Your task to perform on an android device: change the clock display to digital Image 0: 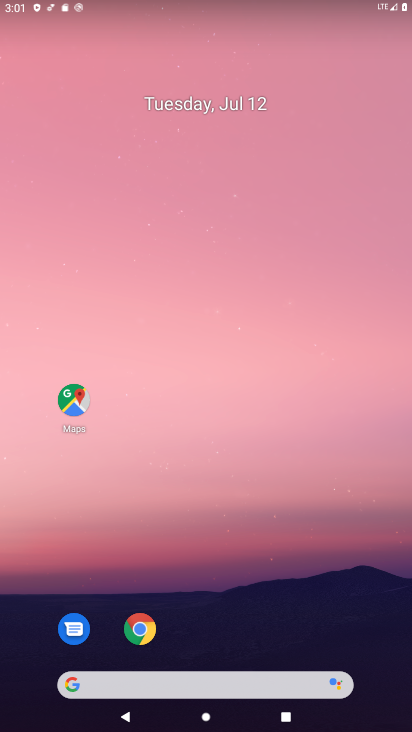
Step 0: drag from (246, 277) to (252, 194)
Your task to perform on an android device: change the clock display to digital Image 1: 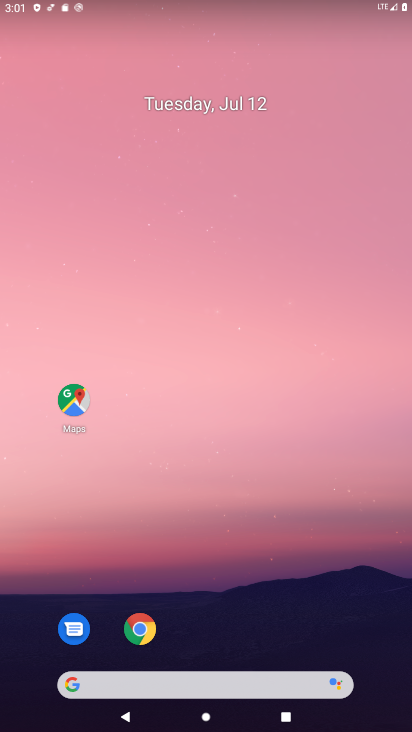
Step 1: drag from (266, 661) to (257, 405)
Your task to perform on an android device: change the clock display to digital Image 2: 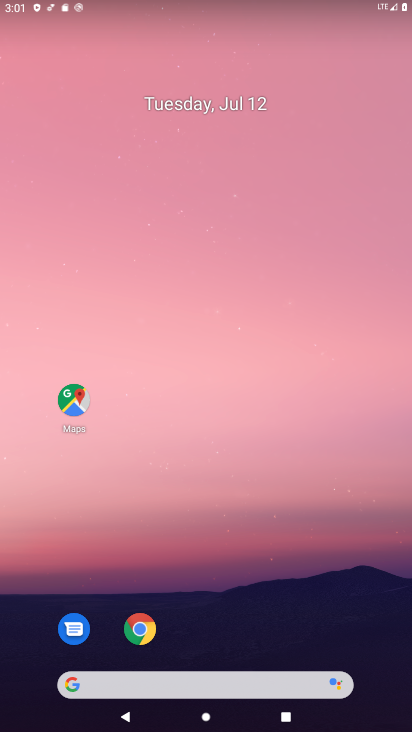
Step 2: drag from (262, 668) to (224, 270)
Your task to perform on an android device: change the clock display to digital Image 3: 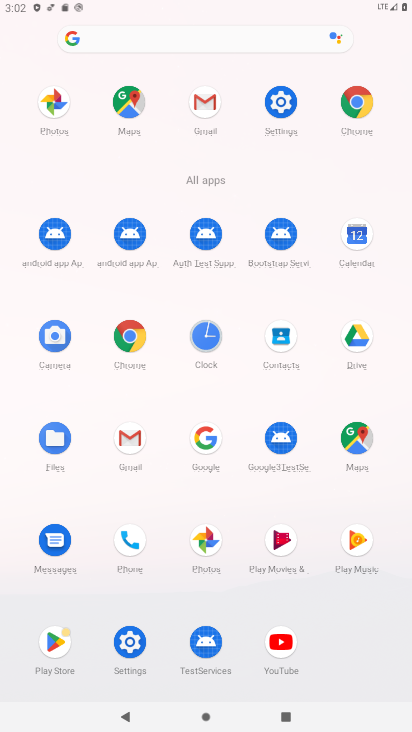
Step 3: click (204, 324)
Your task to perform on an android device: change the clock display to digital Image 4: 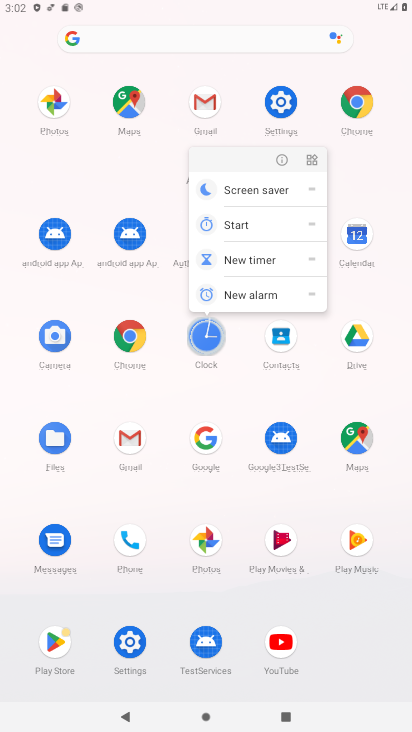
Step 4: click (206, 323)
Your task to perform on an android device: change the clock display to digital Image 5: 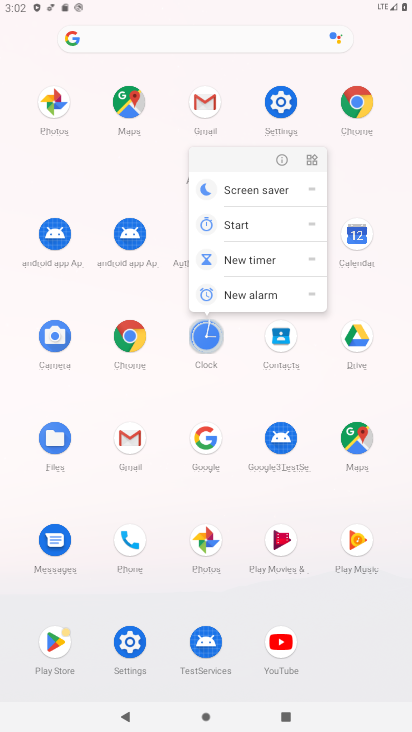
Step 5: click (206, 323)
Your task to perform on an android device: change the clock display to digital Image 6: 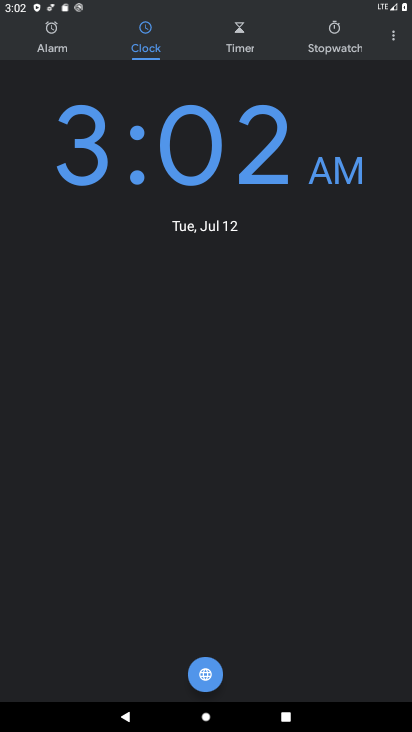
Step 6: click (386, 35)
Your task to perform on an android device: change the clock display to digital Image 7: 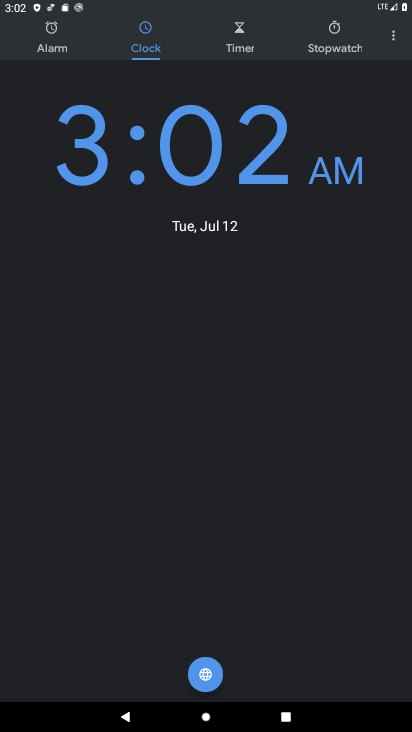
Step 7: click (386, 35)
Your task to perform on an android device: change the clock display to digital Image 8: 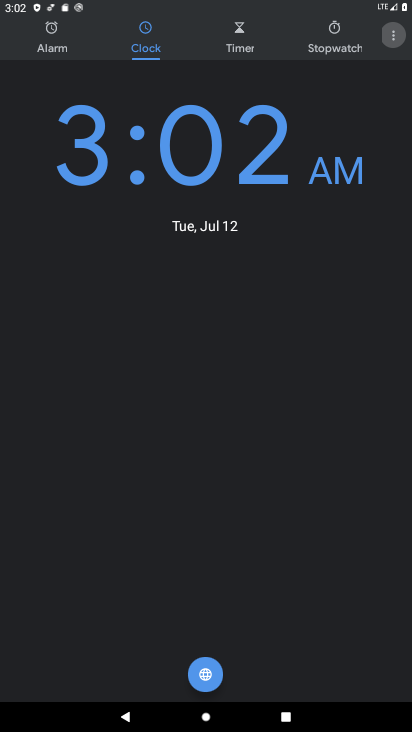
Step 8: click (388, 36)
Your task to perform on an android device: change the clock display to digital Image 9: 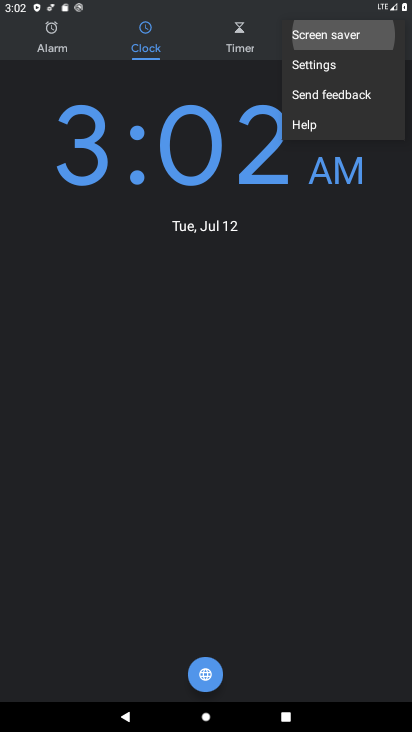
Step 9: click (389, 35)
Your task to perform on an android device: change the clock display to digital Image 10: 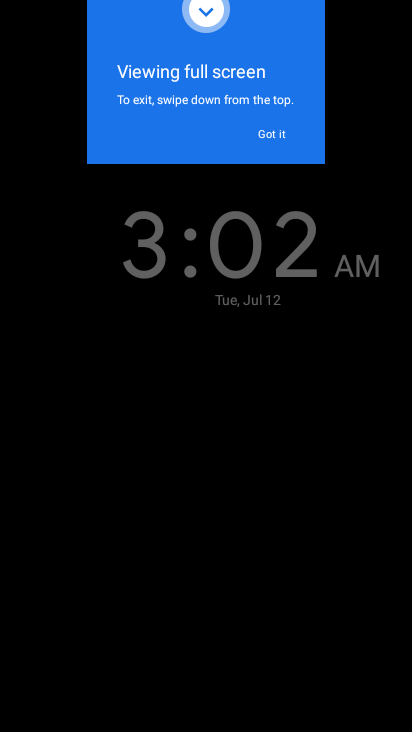
Step 10: click (283, 127)
Your task to perform on an android device: change the clock display to digital Image 11: 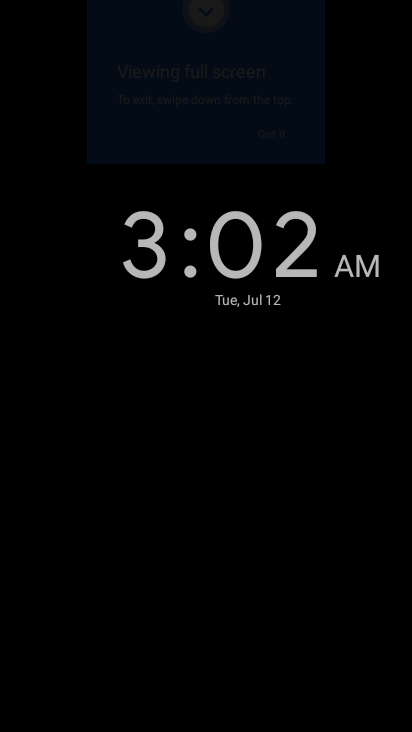
Step 11: click (282, 126)
Your task to perform on an android device: change the clock display to digital Image 12: 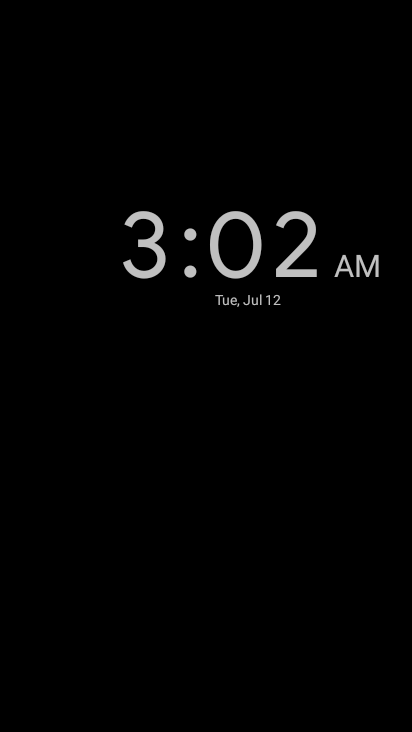
Step 12: click (282, 126)
Your task to perform on an android device: change the clock display to digital Image 13: 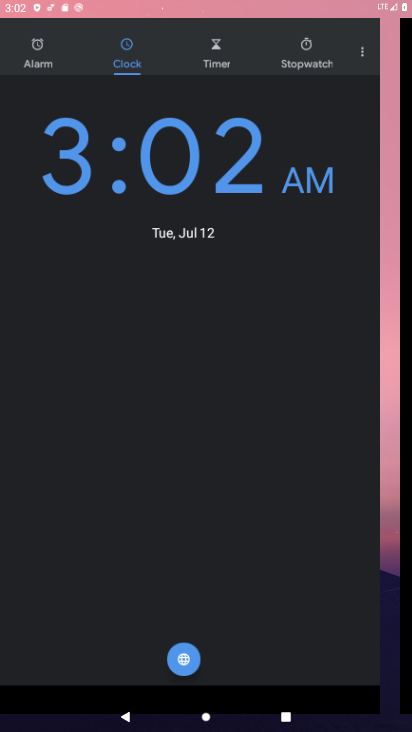
Step 13: click (282, 126)
Your task to perform on an android device: change the clock display to digital Image 14: 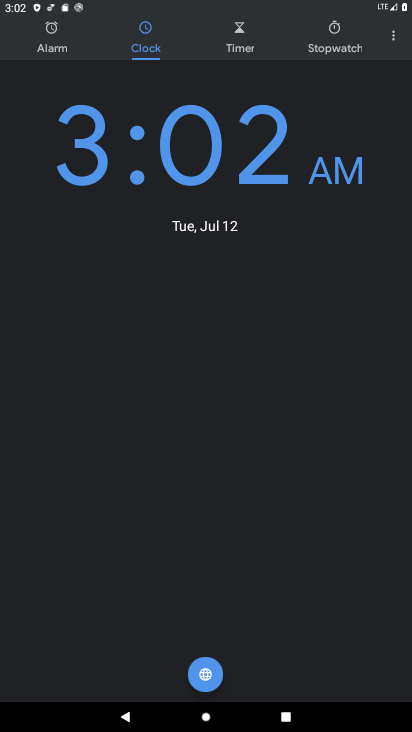
Step 14: click (392, 28)
Your task to perform on an android device: change the clock display to digital Image 15: 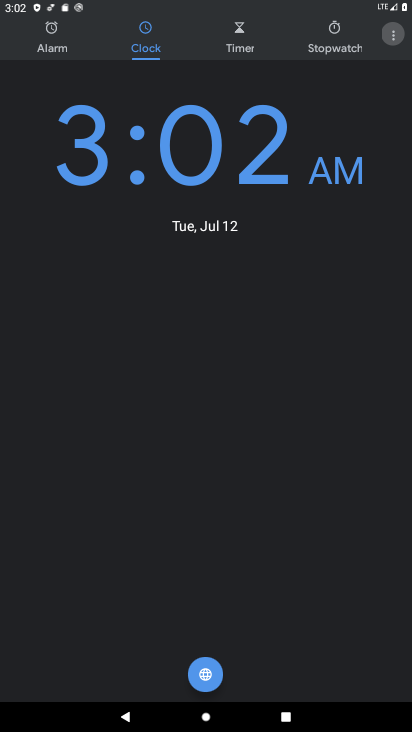
Step 15: click (392, 28)
Your task to perform on an android device: change the clock display to digital Image 16: 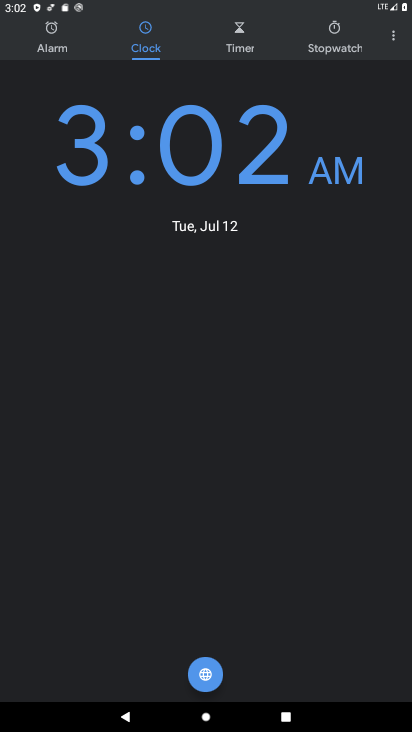
Step 16: click (392, 28)
Your task to perform on an android device: change the clock display to digital Image 17: 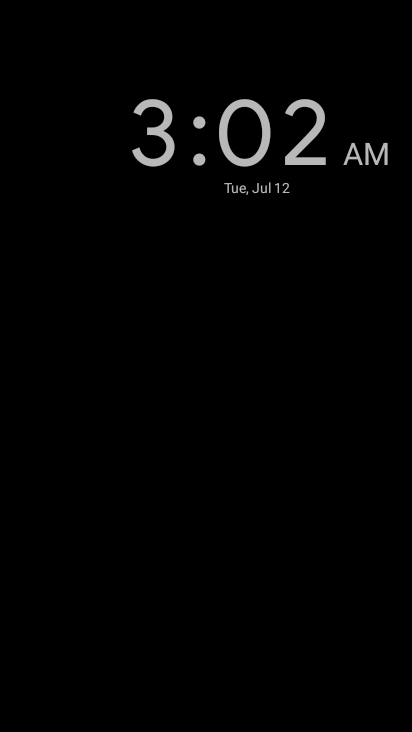
Step 17: press back button
Your task to perform on an android device: change the clock display to digital Image 18: 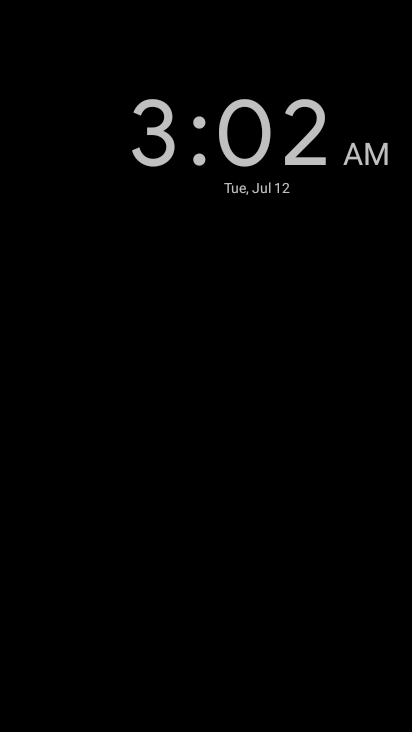
Step 18: press back button
Your task to perform on an android device: change the clock display to digital Image 19: 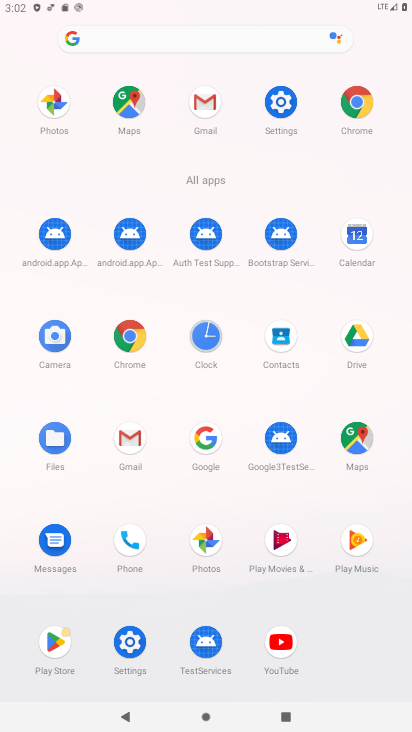
Step 19: click (205, 339)
Your task to perform on an android device: change the clock display to digital Image 20: 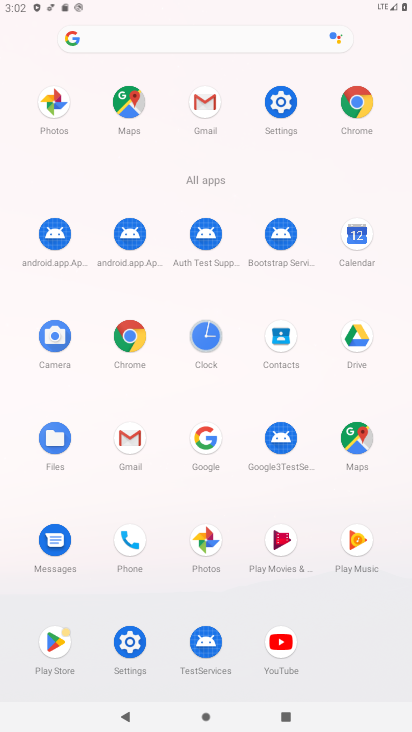
Step 20: click (204, 338)
Your task to perform on an android device: change the clock display to digital Image 21: 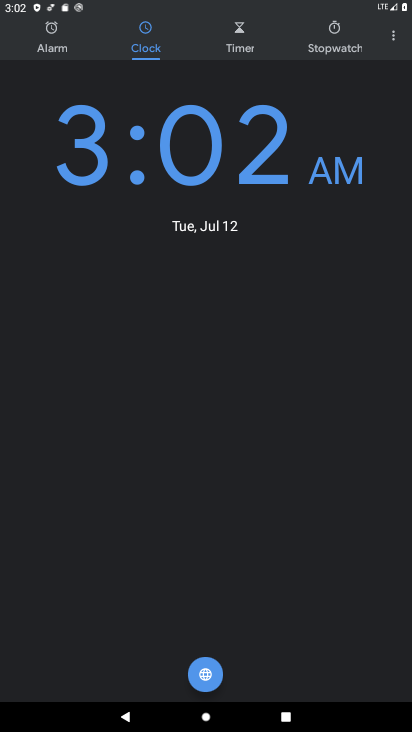
Step 21: click (393, 40)
Your task to perform on an android device: change the clock display to digital Image 22: 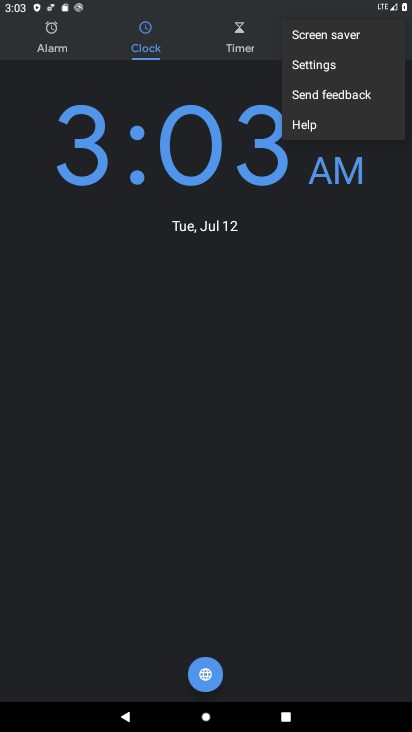
Step 22: click (303, 64)
Your task to perform on an android device: change the clock display to digital Image 23: 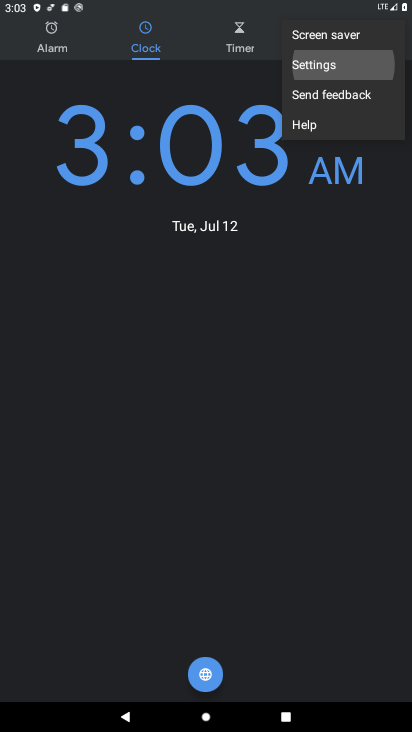
Step 23: click (303, 63)
Your task to perform on an android device: change the clock display to digital Image 24: 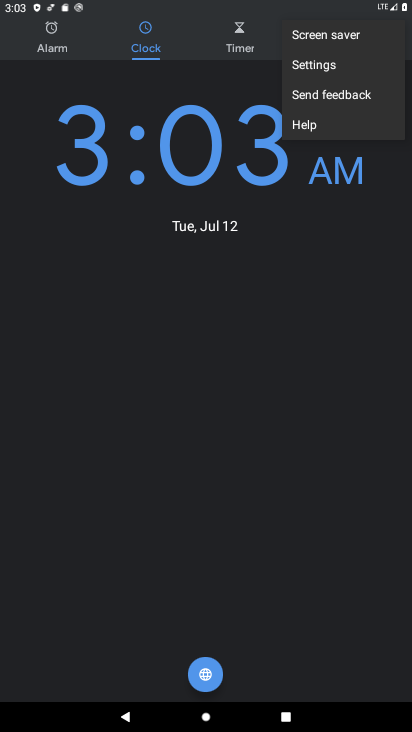
Step 24: click (303, 63)
Your task to perform on an android device: change the clock display to digital Image 25: 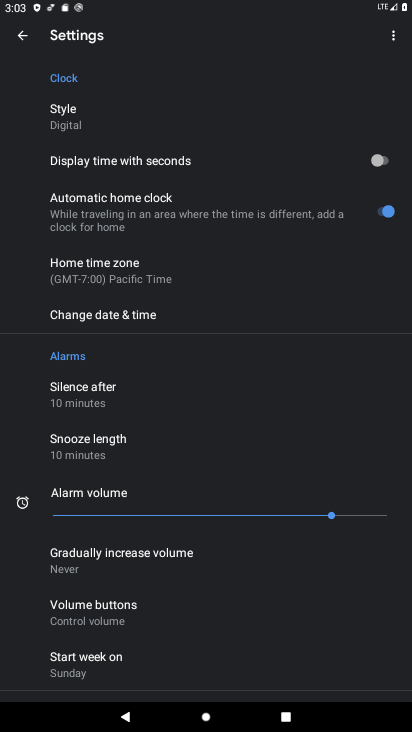
Step 25: task complete